Your task to perform on an android device: turn on improve location accuracy Image 0: 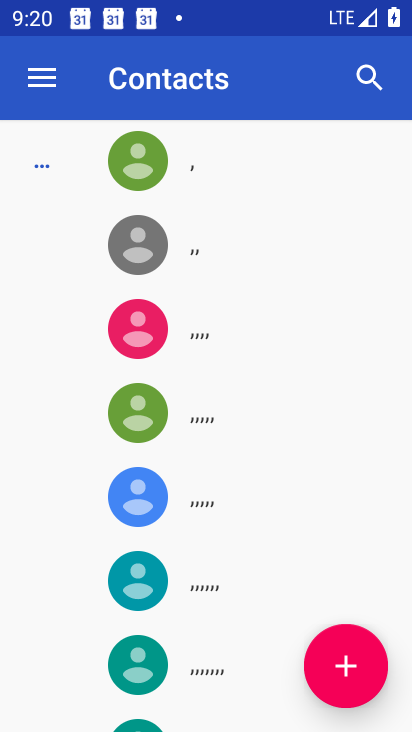
Step 0: press back button
Your task to perform on an android device: turn on improve location accuracy Image 1: 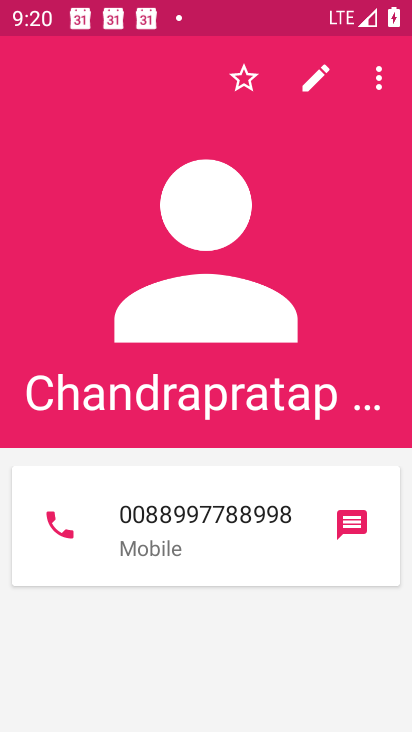
Step 1: press back button
Your task to perform on an android device: turn on improve location accuracy Image 2: 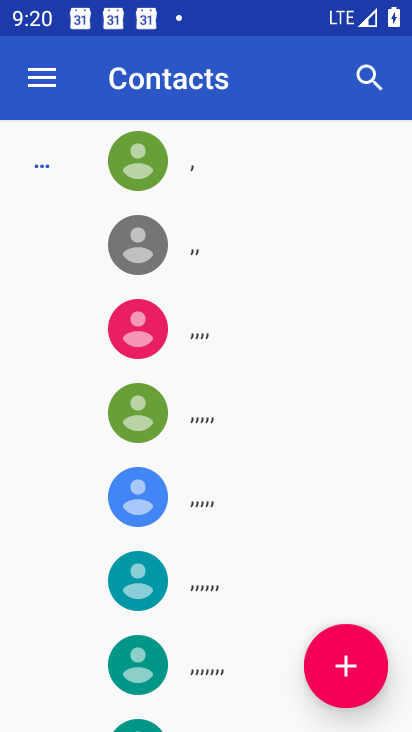
Step 2: press back button
Your task to perform on an android device: turn on improve location accuracy Image 3: 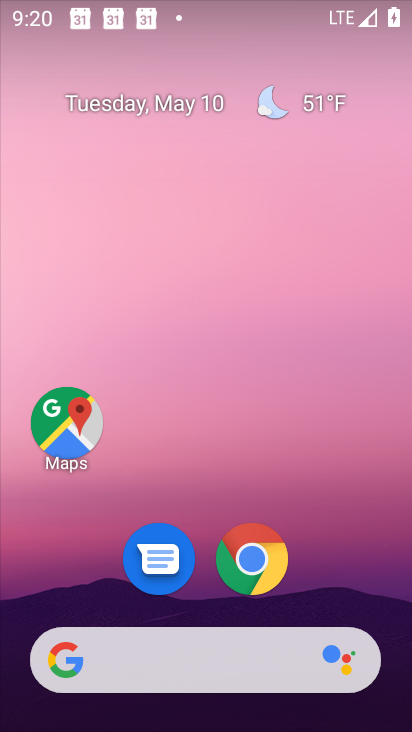
Step 3: drag from (356, 518) to (234, 66)
Your task to perform on an android device: turn on improve location accuracy Image 4: 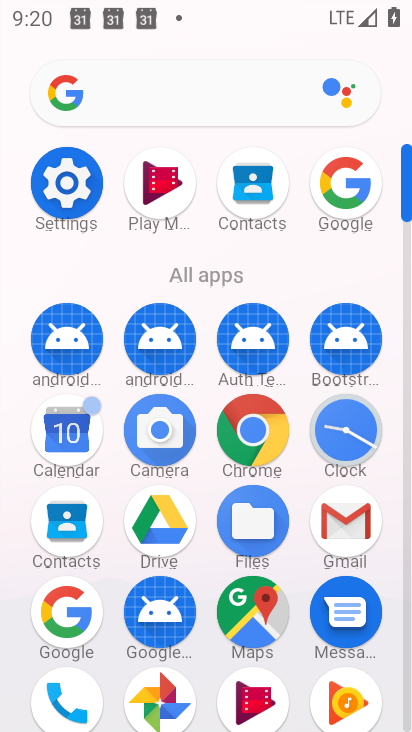
Step 4: click (68, 180)
Your task to perform on an android device: turn on improve location accuracy Image 5: 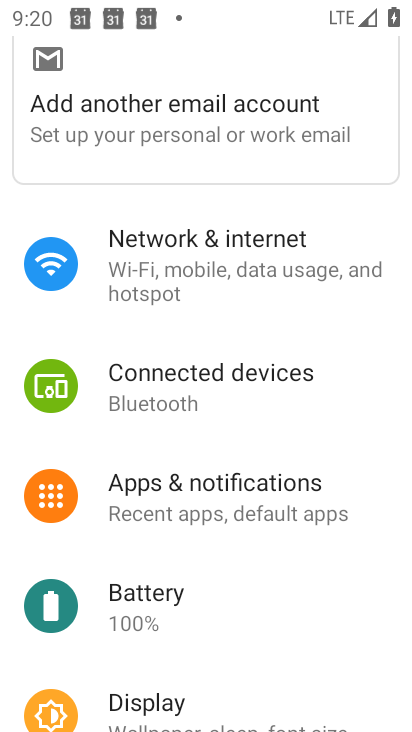
Step 5: drag from (207, 596) to (235, 490)
Your task to perform on an android device: turn on improve location accuracy Image 6: 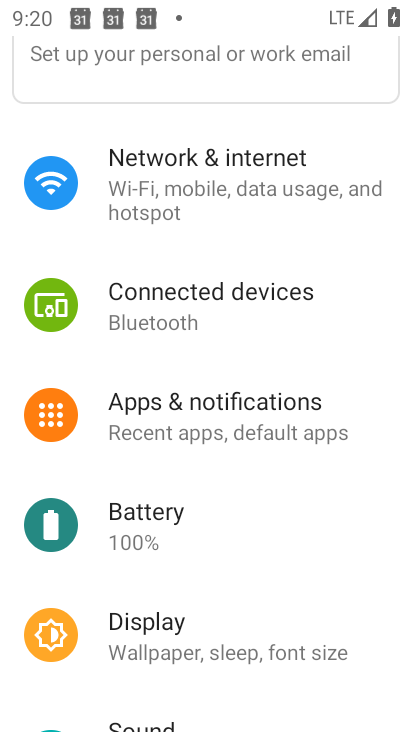
Step 6: drag from (222, 592) to (249, 481)
Your task to perform on an android device: turn on improve location accuracy Image 7: 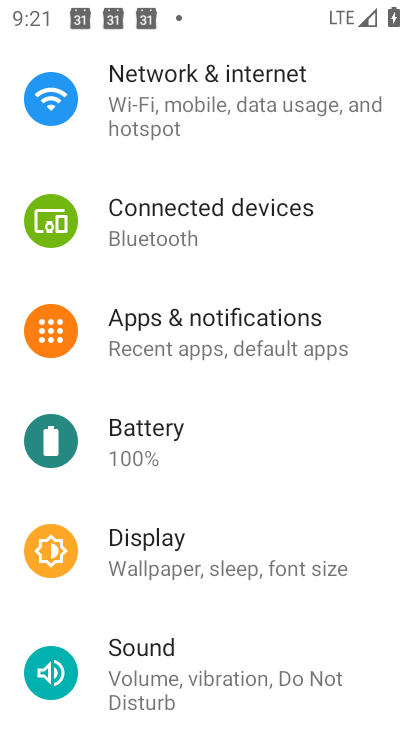
Step 7: drag from (209, 630) to (246, 509)
Your task to perform on an android device: turn on improve location accuracy Image 8: 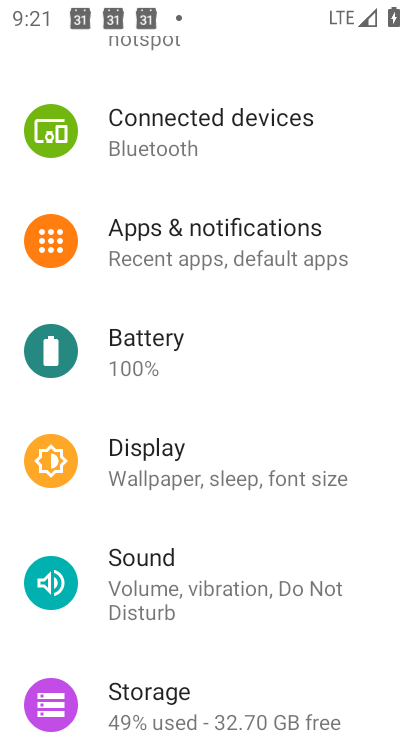
Step 8: drag from (212, 625) to (233, 490)
Your task to perform on an android device: turn on improve location accuracy Image 9: 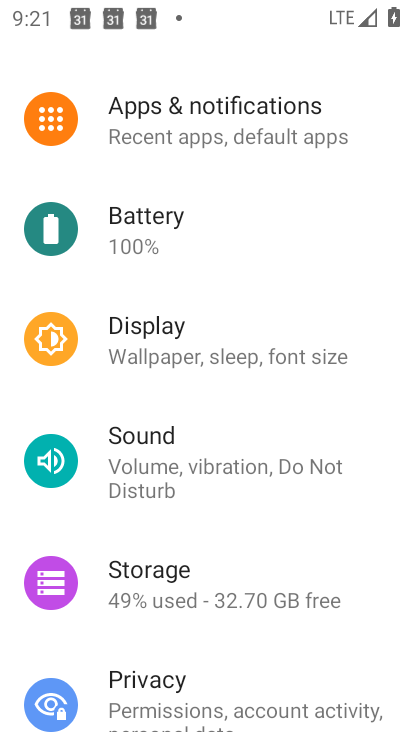
Step 9: drag from (201, 624) to (239, 513)
Your task to perform on an android device: turn on improve location accuracy Image 10: 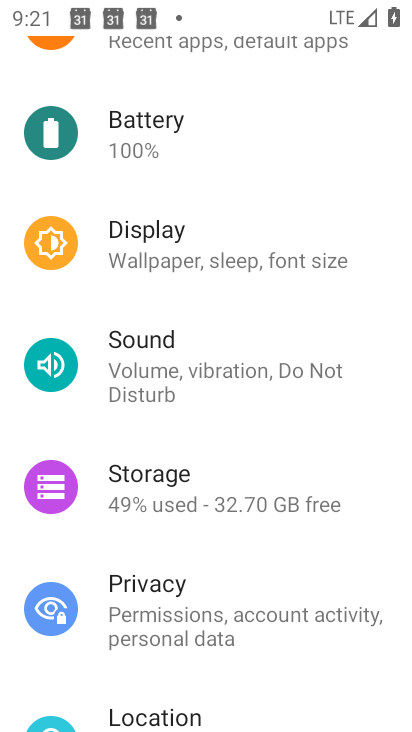
Step 10: drag from (195, 646) to (244, 506)
Your task to perform on an android device: turn on improve location accuracy Image 11: 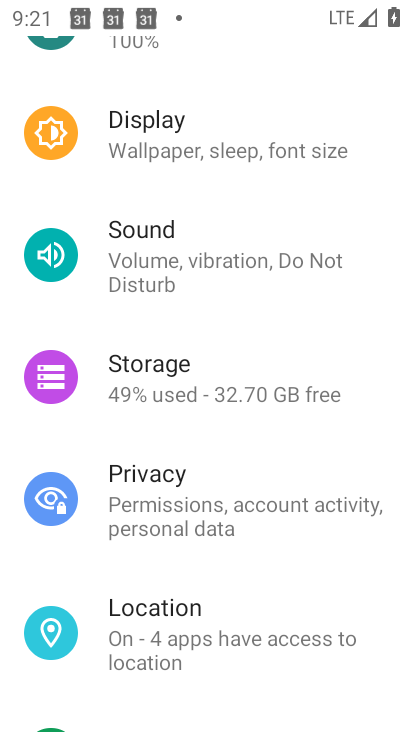
Step 11: click (168, 603)
Your task to perform on an android device: turn on improve location accuracy Image 12: 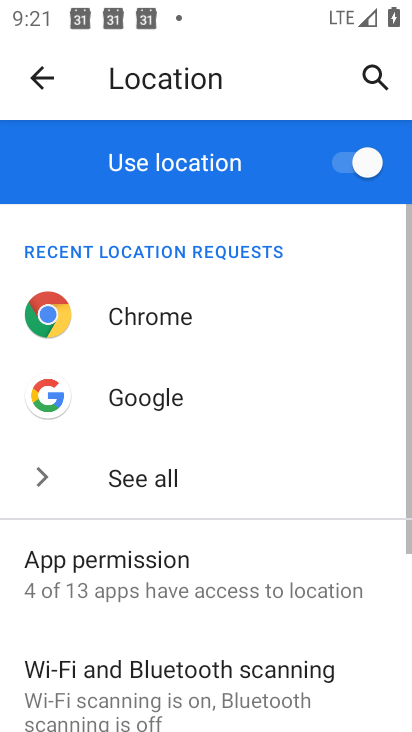
Step 12: drag from (194, 614) to (235, 405)
Your task to perform on an android device: turn on improve location accuracy Image 13: 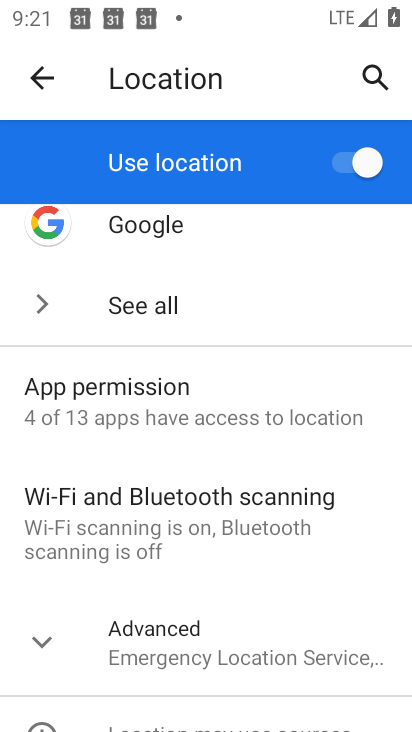
Step 13: drag from (244, 588) to (235, 458)
Your task to perform on an android device: turn on improve location accuracy Image 14: 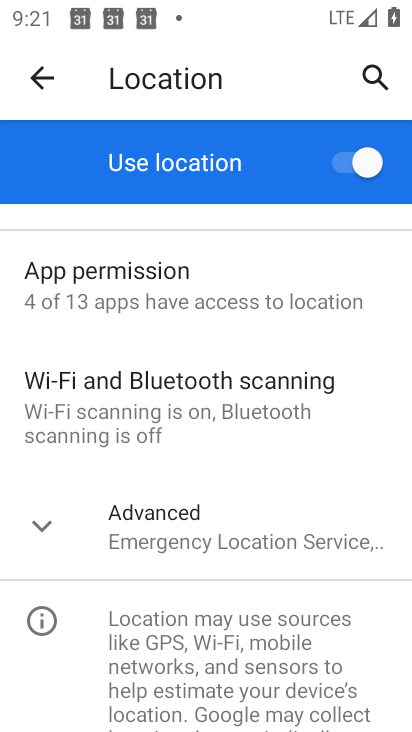
Step 14: drag from (250, 576) to (259, 489)
Your task to perform on an android device: turn on improve location accuracy Image 15: 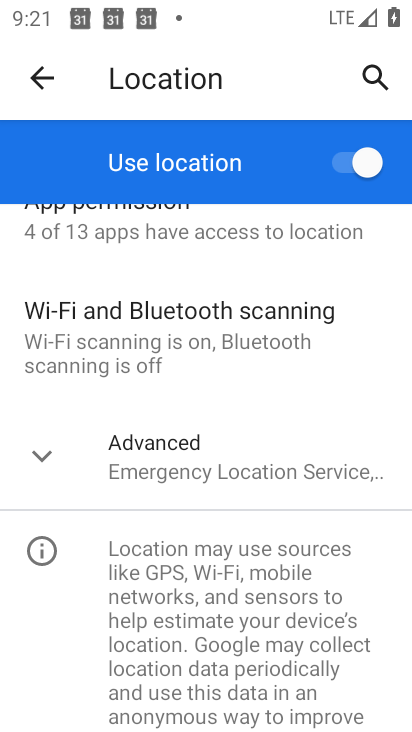
Step 15: click (262, 472)
Your task to perform on an android device: turn on improve location accuracy Image 16: 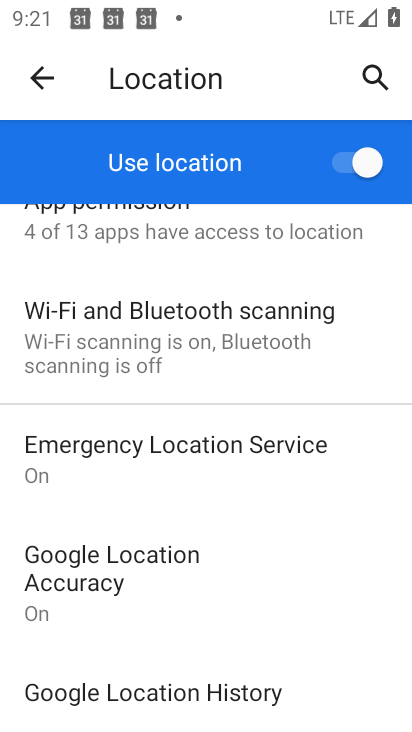
Step 16: click (125, 579)
Your task to perform on an android device: turn on improve location accuracy Image 17: 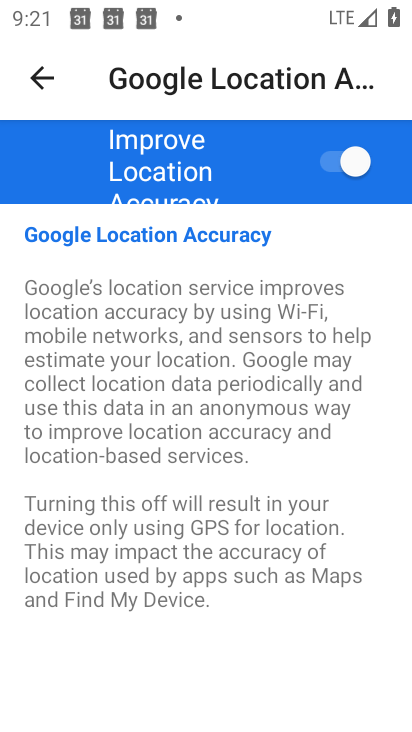
Step 17: task complete